Your task to perform on an android device: change notification settings in the gmail app Image 0: 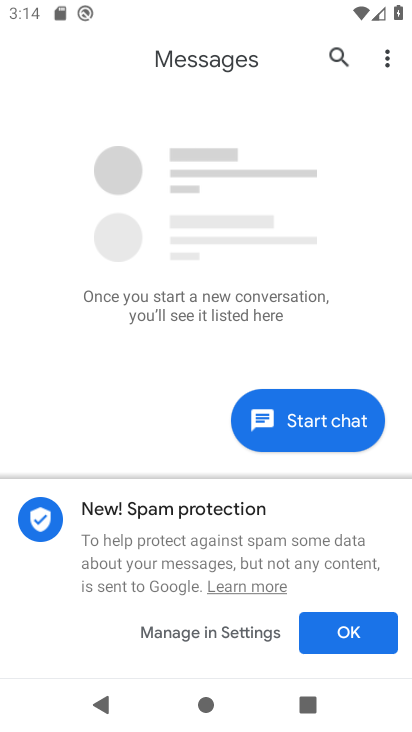
Step 0: press home button
Your task to perform on an android device: change notification settings in the gmail app Image 1: 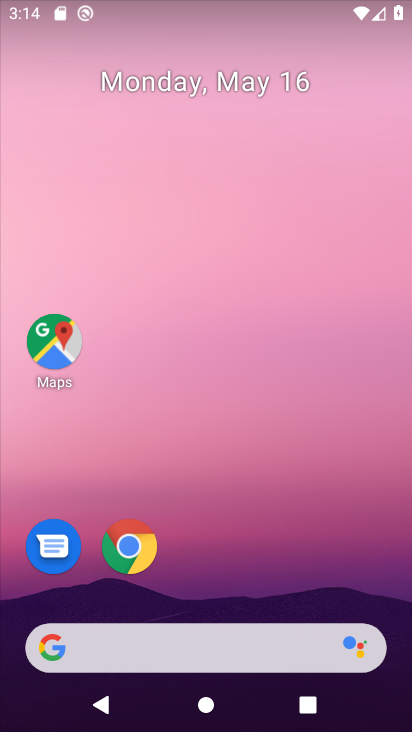
Step 1: drag from (372, 562) to (349, 120)
Your task to perform on an android device: change notification settings in the gmail app Image 2: 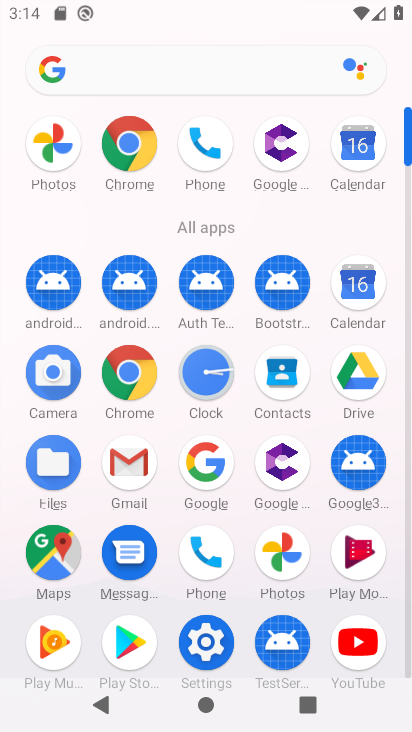
Step 2: click (128, 479)
Your task to perform on an android device: change notification settings in the gmail app Image 3: 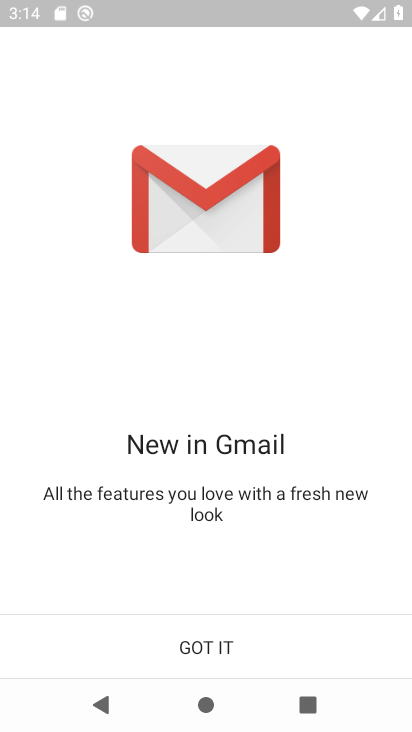
Step 3: click (216, 643)
Your task to perform on an android device: change notification settings in the gmail app Image 4: 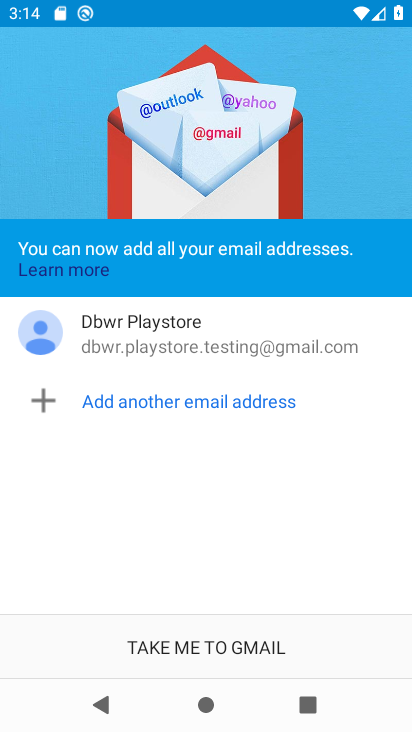
Step 4: click (216, 643)
Your task to perform on an android device: change notification settings in the gmail app Image 5: 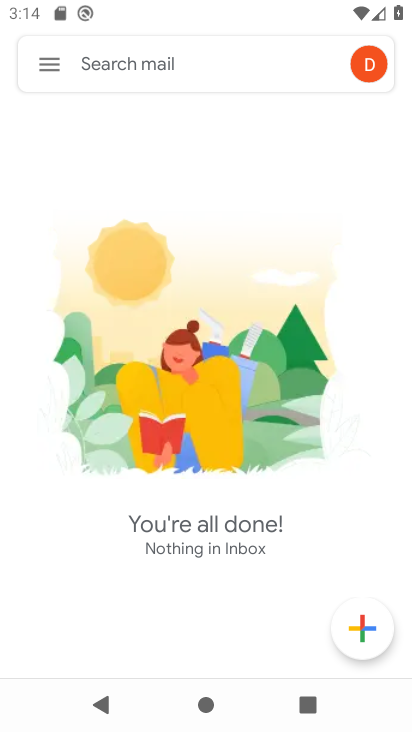
Step 5: click (51, 66)
Your task to perform on an android device: change notification settings in the gmail app Image 6: 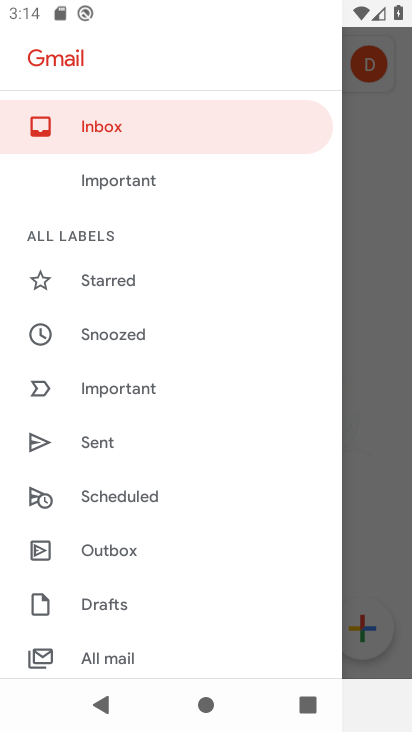
Step 6: drag from (262, 566) to (260, 453)
Your task to perform on an android device: change notification settings in the gmail app Image 7: 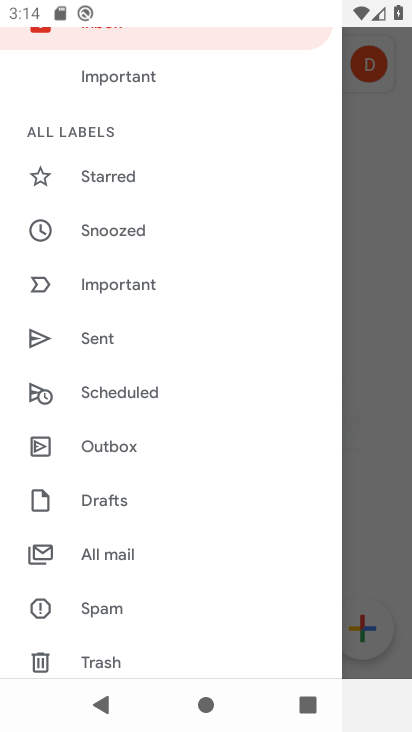
Step 7: drag from (272, 595) to (301, 417)
Your task to perform on an android device: change notification settings in the gmail app Image 8: 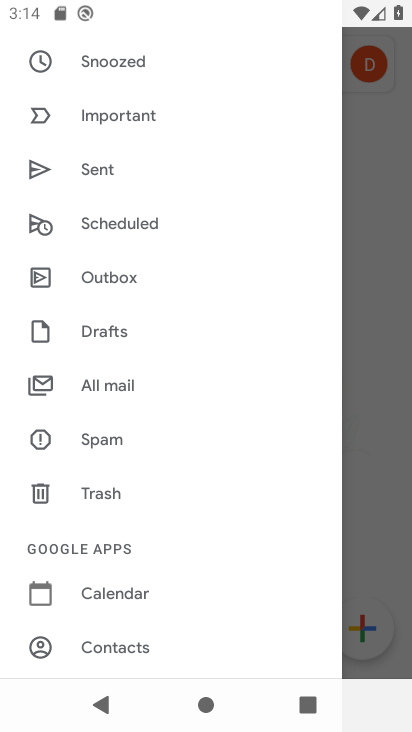
Step 8: drag from (255, 622) to (273, 474)
Your task to perform on an android device: change notification settings in the gmail app Image 9: 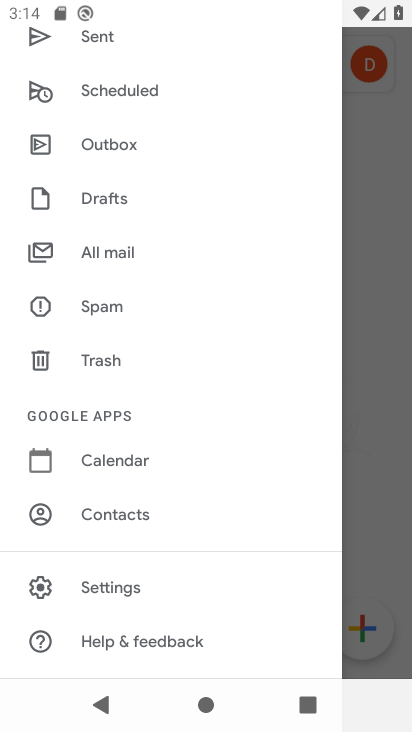
Step 9: drag from (258, 639) to (284, 492)
Your task to perform on an android device: change notification settings in the gmail app Image 10: 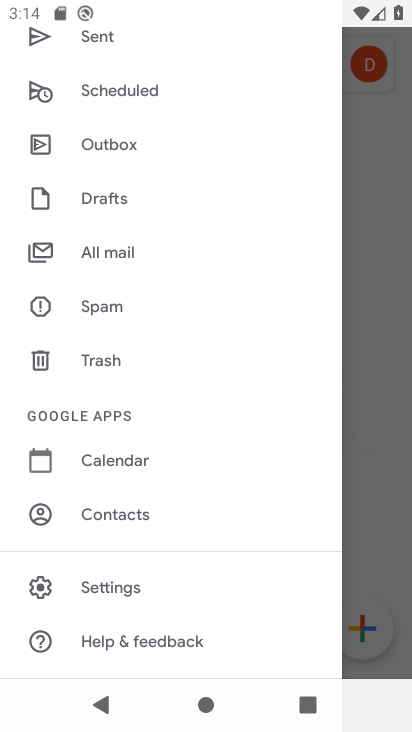
Step 10: click (156, 587)
Your task to perform on an android device: change notification settings in the gmail app Image 11: 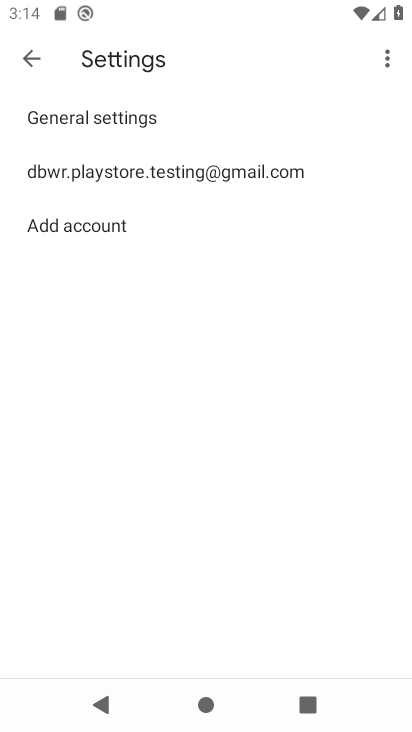
Step 11: click (236, 169)
Your task to perform on an android device: change notification settings in the gmail app Image 12: 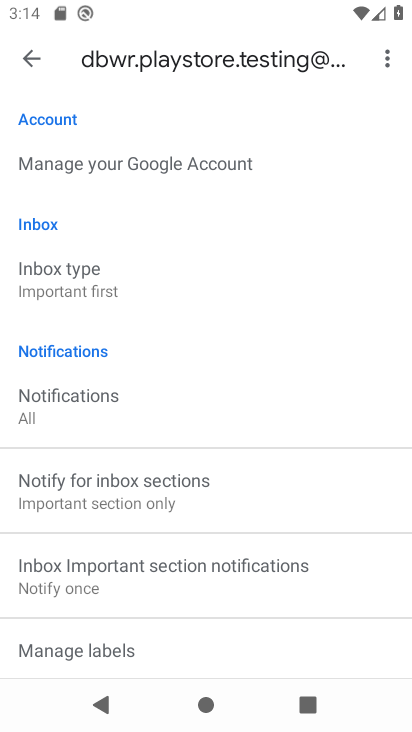
Step 12: drag from (309, 473) to (330, 352)
Your task to perform on an android device: change notification settings in the gmail app Image 13: 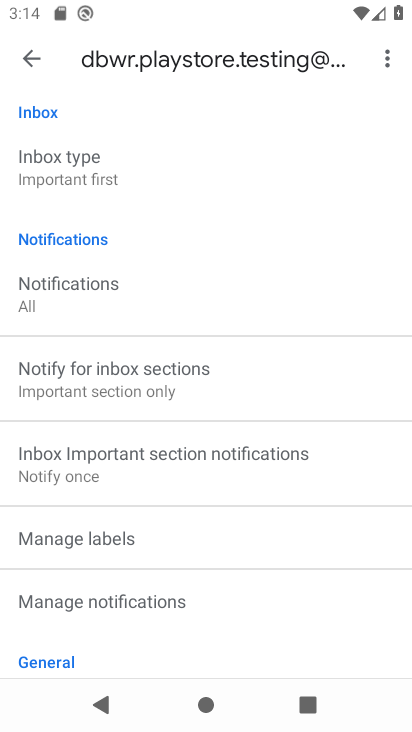
Step 13: drag from (283, 577) to (287, 395)
Your task to perform on an android device: change notification settings in the gmail app Image 14: 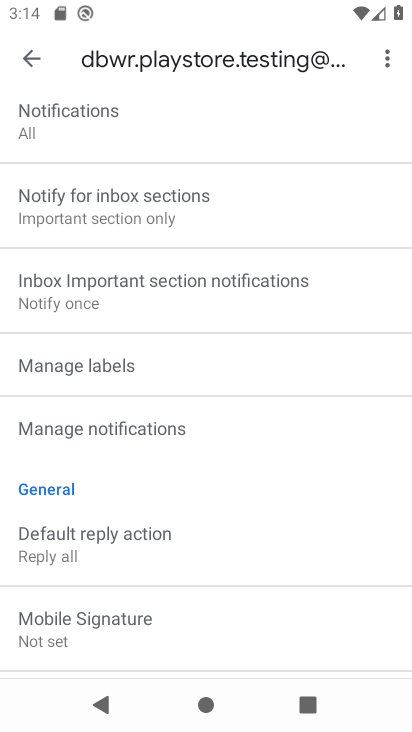
Step 14: drag from (294, 610) to (311, 416)
Your task to perform on an android device: change notification settings in the gmail app Image 15: 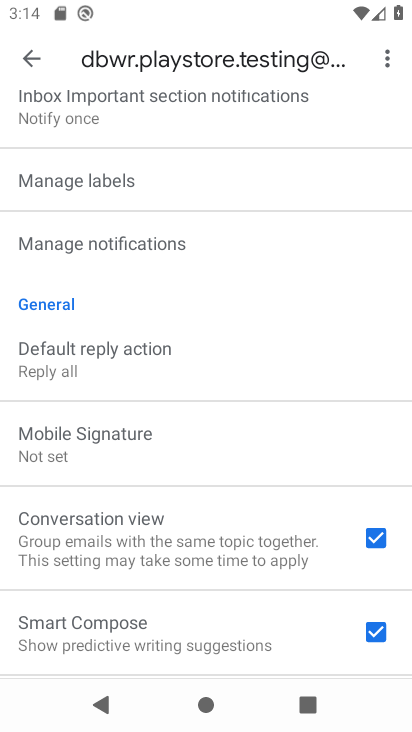
Step 15: drag from (337, 617) to (339, 427)
Your task to perform on an android device: change notification settings in the gmail app Image 16: 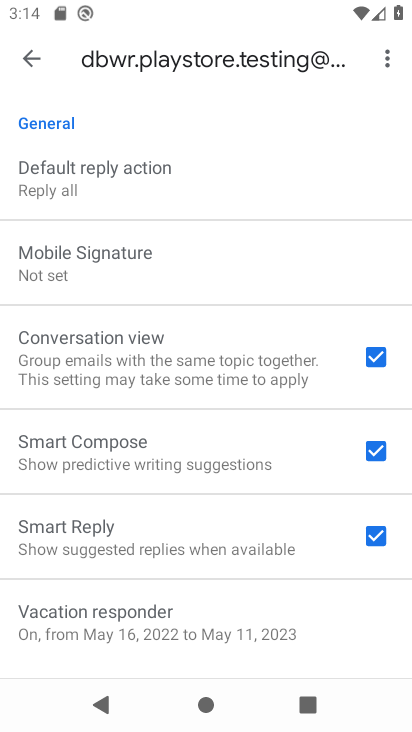
Step 16: drag from (315, 621) to (323, 427)
Your task to perform on an android device: change notification settings in the gmail app Image 17: 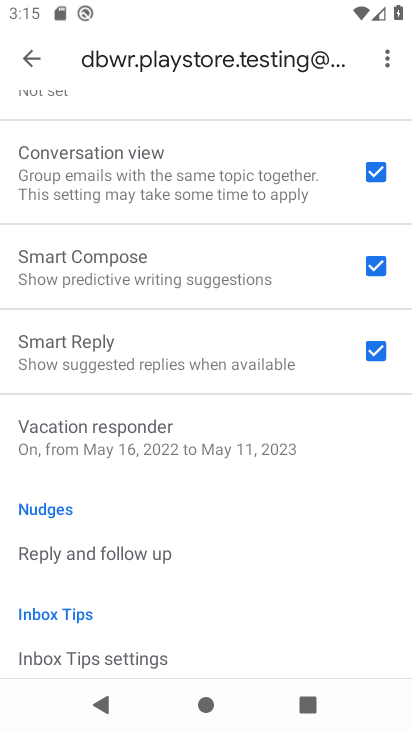
Step 17: drag from (308, 647) to (320, 426)
Your task to perform on an android device: change notification settings in the gmail app Image 18: 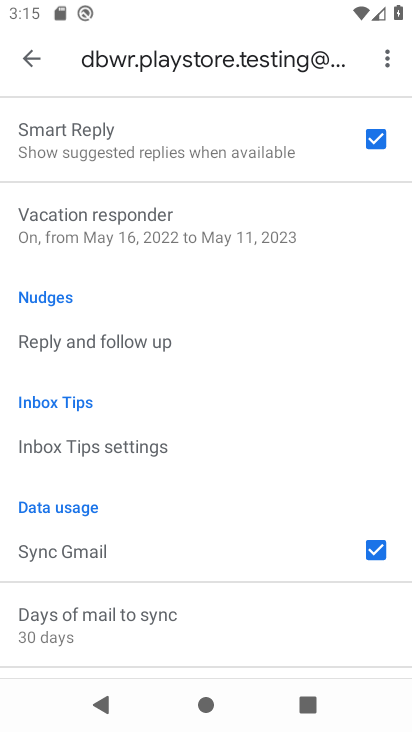
Step 18: drag from (311, 291) to (321, 472)
Your task to perform on an android device: change notification settings in the gmail app Image 19: 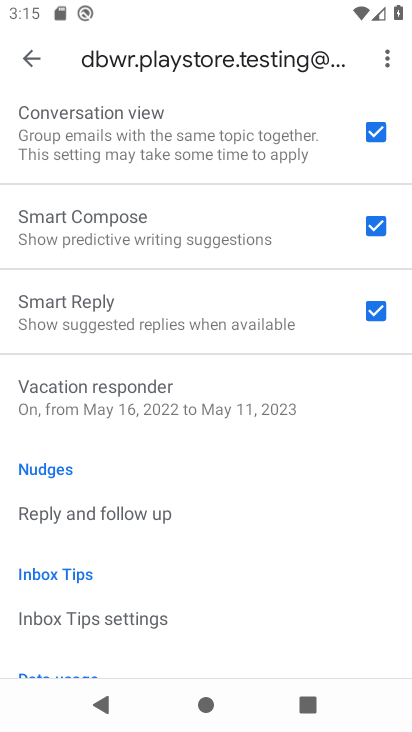
Step 19: drag from (313, 255) to (300, 407)
Your task to perform on an android device: change notification settings in the gmail app Image 20: 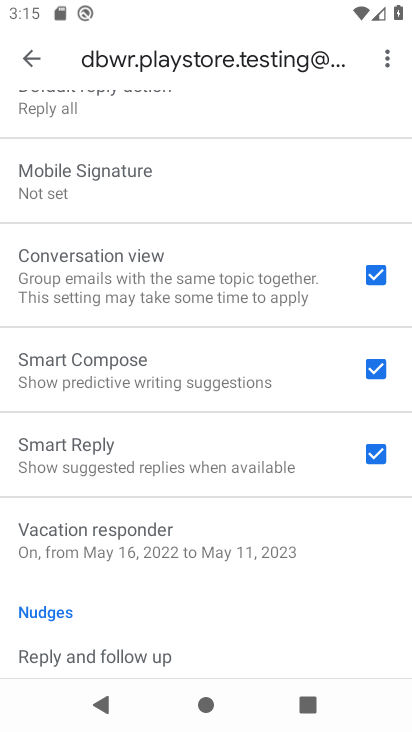
Step 20: drag from (289, 223) to (267, 377)
Your task to perform on an android device: change notification settings in the gmail app Image 21: 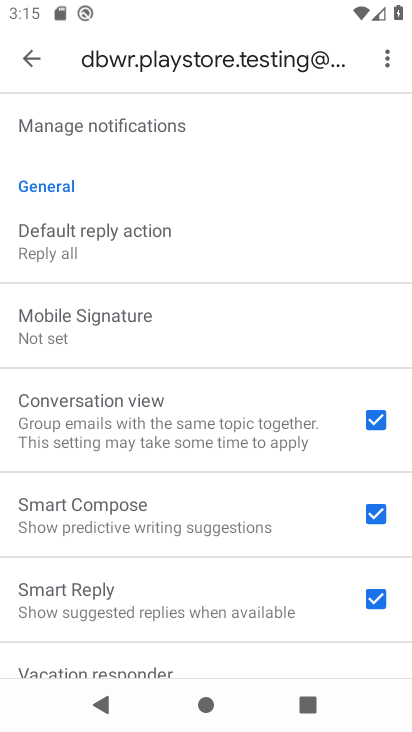
Step 21: click (189, 143)
Your task to perform on an android device: change notification settings in the gmail app Image 22: 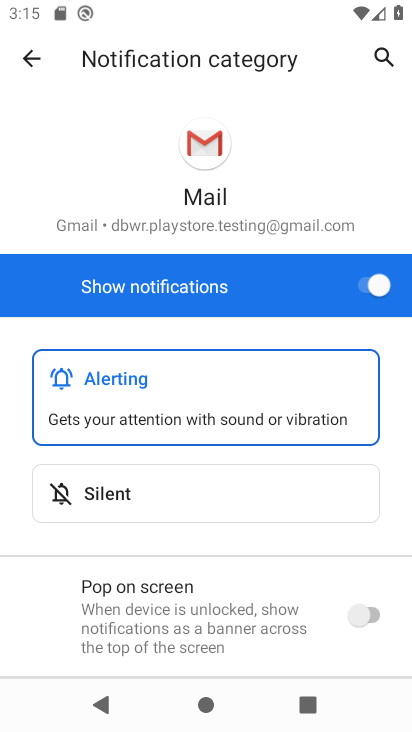
Step 22: click (364, 288)
Your task to perform on an android device: change notification settings in the gmail app Image 23: 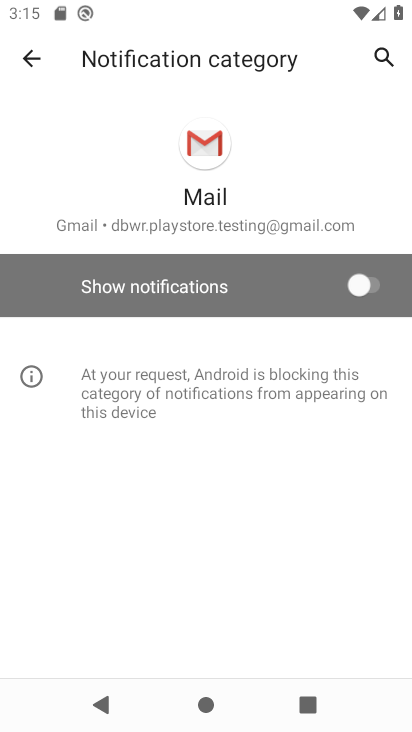
Step 23: task complete